Your task to perform on an android device: all mails in gmail Image 0: 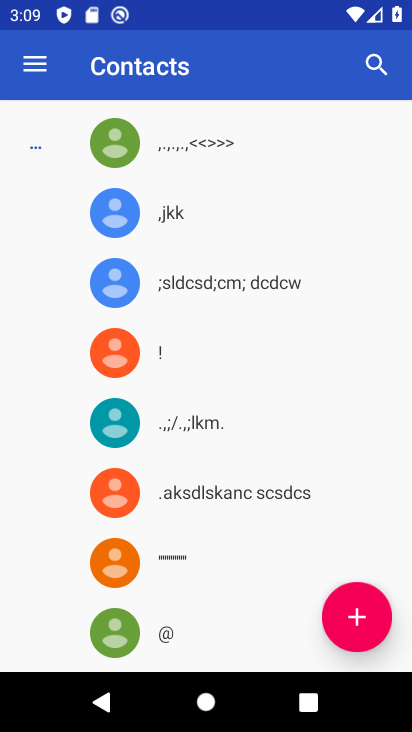
Step 0: press back button
Your task to perform on an android device: all mails in gmail Image 1: 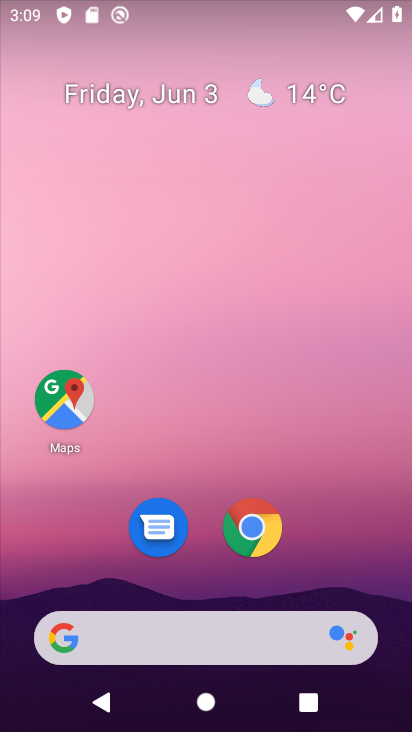
Step 1: drag from (348, 531) to (268, 27)
Your task to perform on an android device: all mails in gmail Image 2: 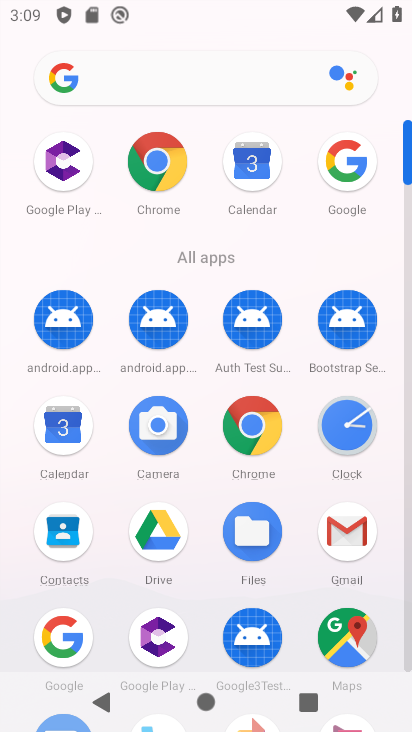
Step 2: click (344, 529)
Your task to perform on an android device: all mails in gmail Image 3: 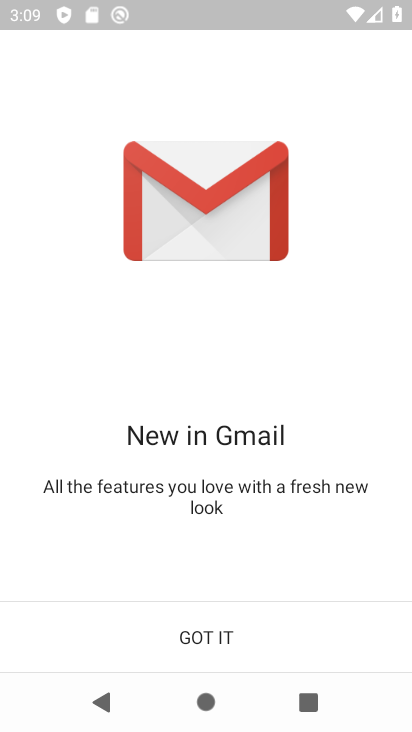
Step 3: click (224, 639)
Your task to perform on an android device: all mails in gmail Image 4: 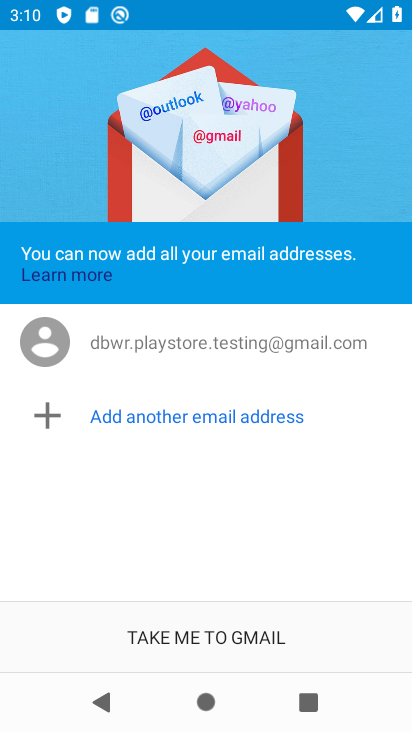
Step 4: click (223, 639)
Your task to perform on an android device: all mails in gmail Image 5: 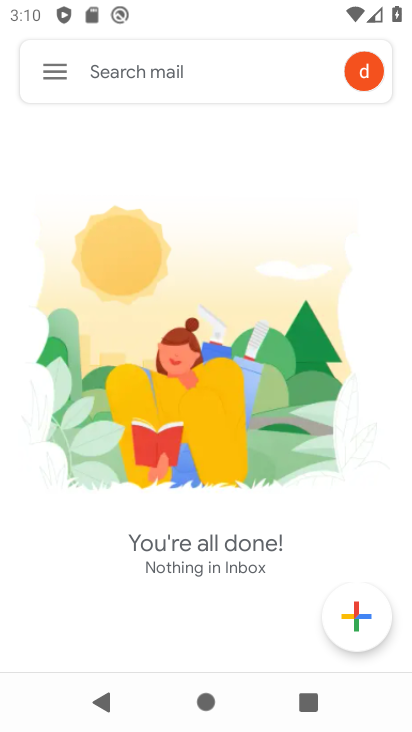
Step 5: click (54, 77)
Your task to perform on an android device: all mails in gmail Image 6: 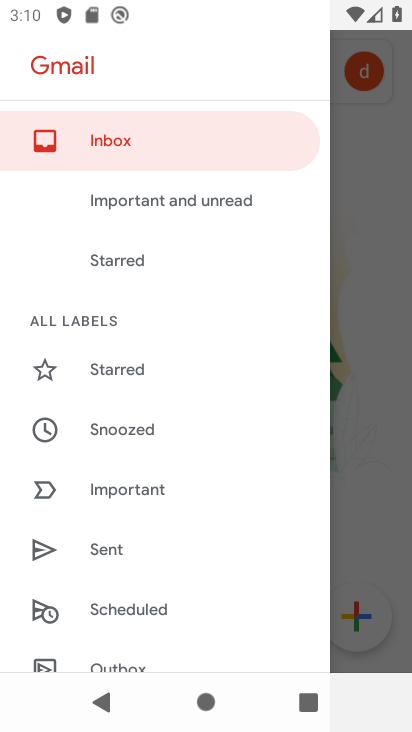
Step 6: drag from (115, 457) to (171, 365)
Your task to perform on an android device: all mails in gmail Image 7: 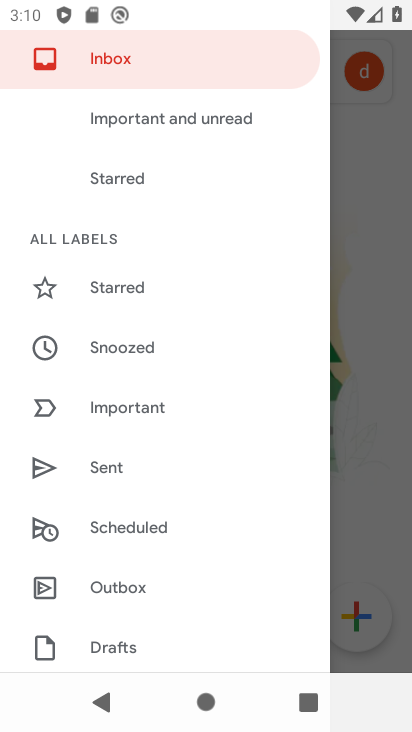
Step 7: drag from (115, 441) to (152, 340)
Your task to perform on an android device: all mails in gmail Image 8: 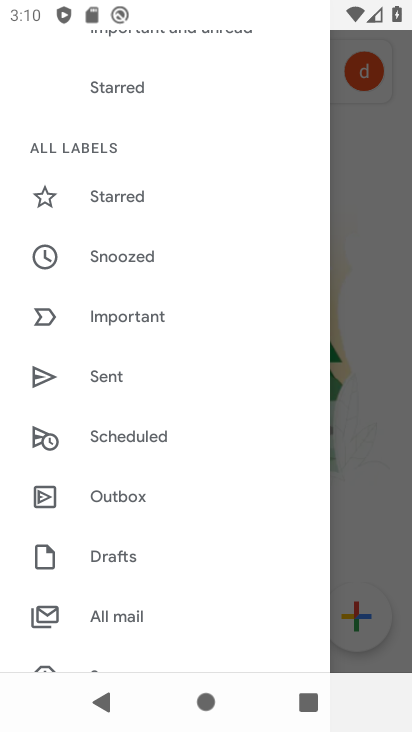
Step 8: drag from (145, 364) to (178, 316)
Your task to perform on an android device: all mails in gmail Image 9: 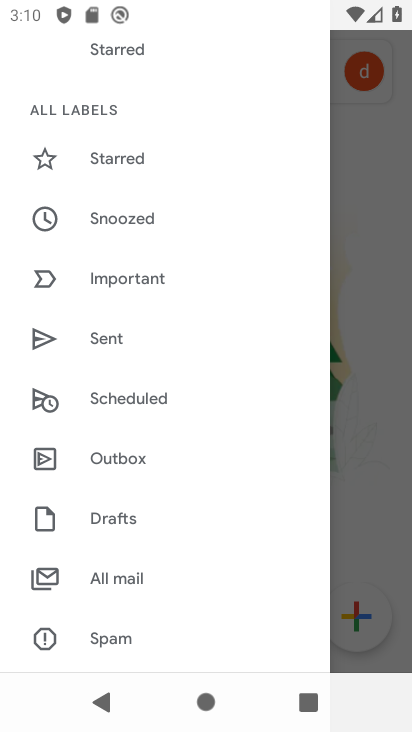
Step 9: drag from (123, 375) to (165, 275)
Your task to perform on an android device: all mails in gmail Image 10: 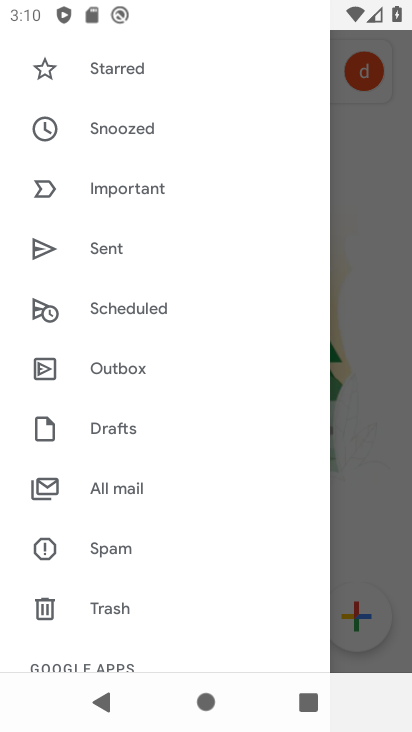
Step 10: drag from (114, 347) to (181, 251)
Your task to perform on an android device: all mails in gmail Image 11: 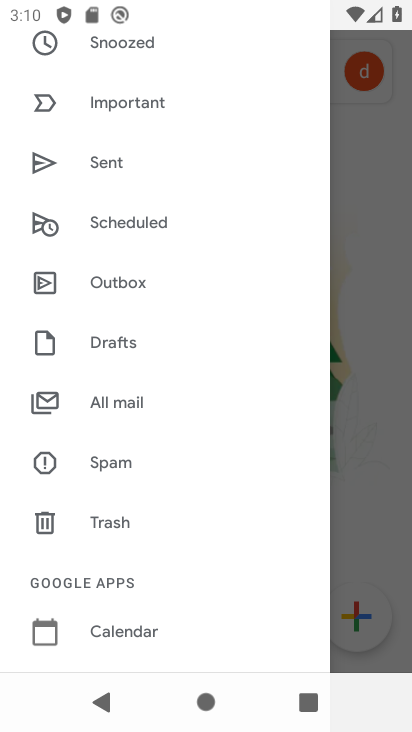
Step 11: click (149, 407)
Your task to perform on an android device: all mails in gmail Image 12: 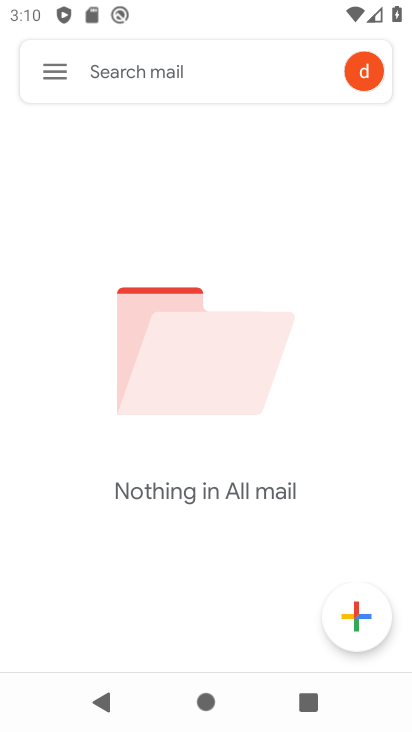
Step 12: task complete